Your task to perform on an android device: Toggle the flashlight Image 0: 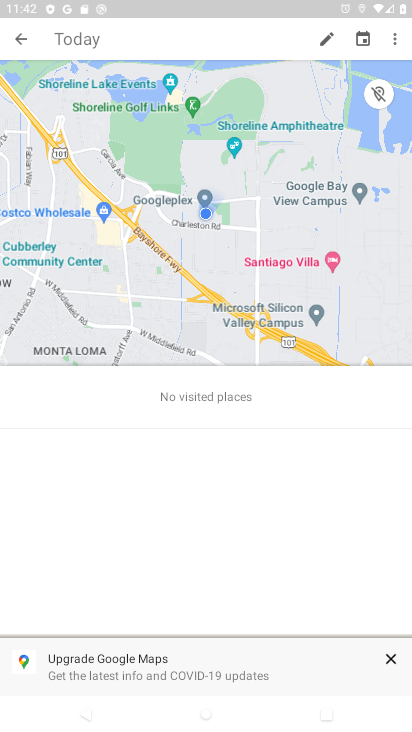
Step 0: press home button
Your task to perform on an android device: Toggle the flashlight Image 1: 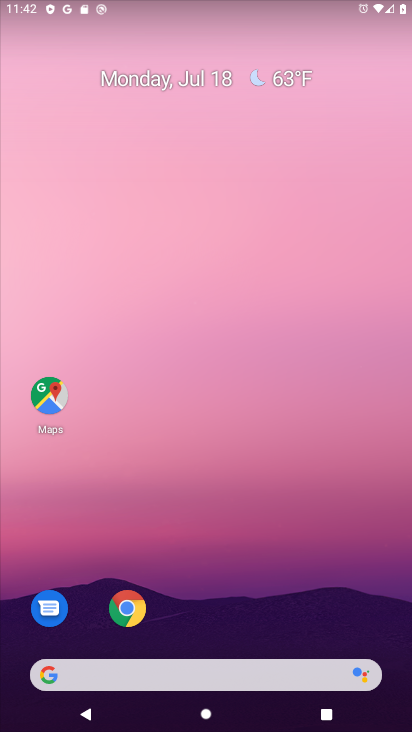
Step 1: drag from (265, 601) to (343, 2)
Your task to perform on an android device: Toggle the flashlight Image 2: 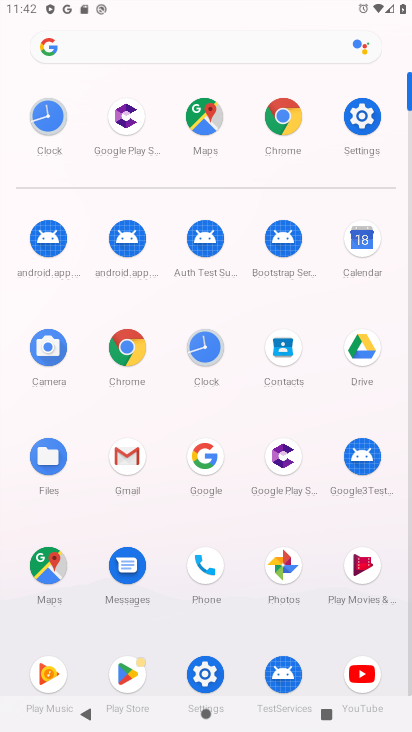
Step 2: click (364, 128)
Your task to perform on an android device: Toggle the flashlight Image 3: 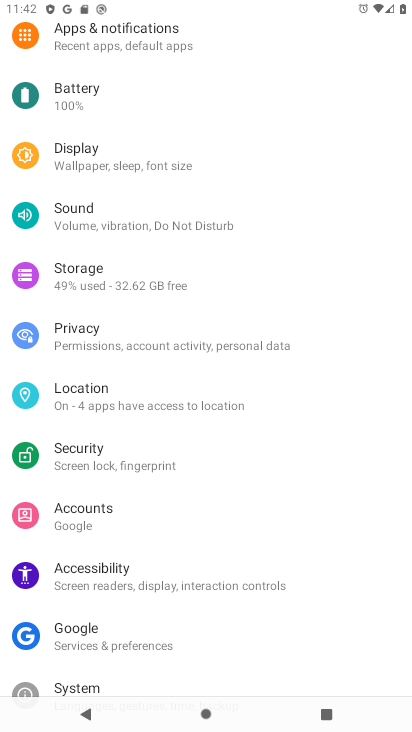
Step 3: task complete